Your task to perform on an android device: Open maps Image 0: 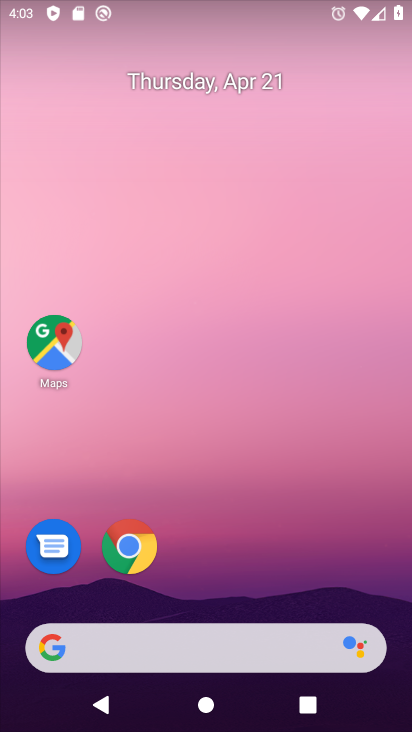
Step 0: drag from (242, 524) to (285, 162)
Your task to perform on an android device: Open maps Image 1: 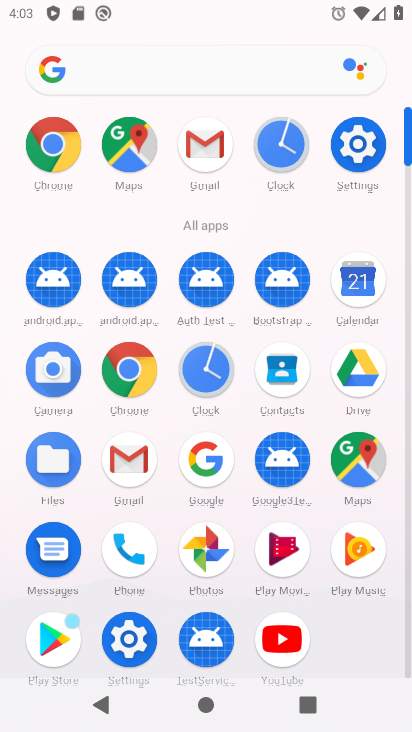
Step 1: click (360, 473)
Your task to perform on an android device: Open maps Image 2: 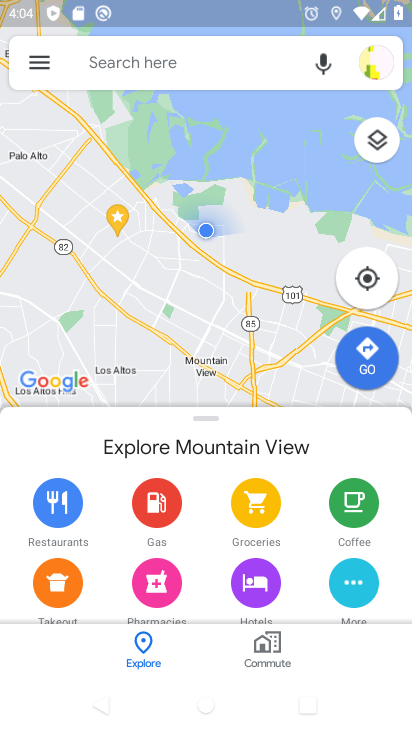
Step 2: task complete